Your task to perform on an android device: Go to Google maps Image 0: 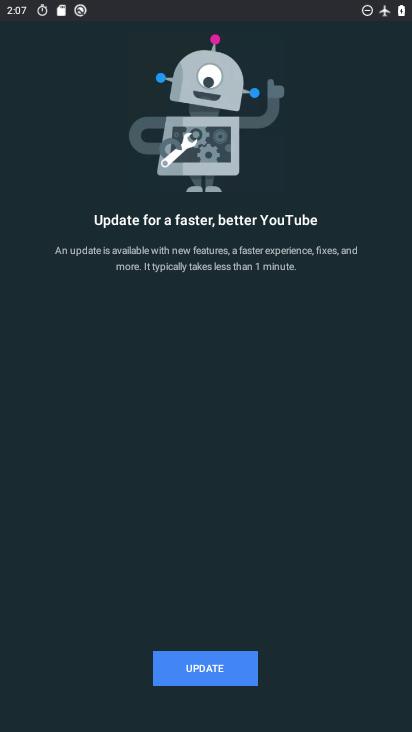
Step 0: press home button
Your task to perform on an android device: Go to Google maps Image 1: 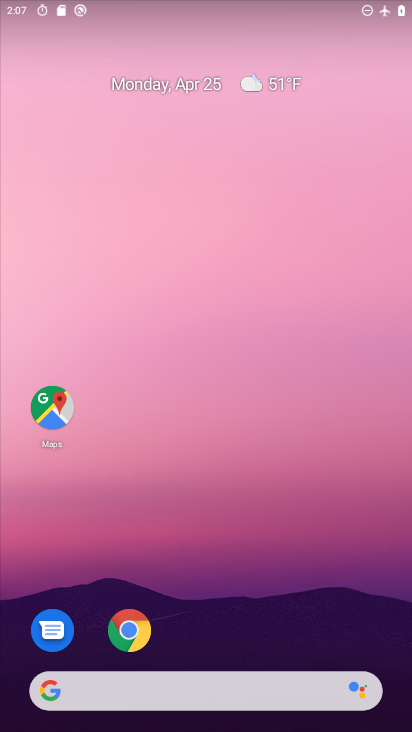
Step 1: drag from (316, 539) to (291, 73)
Your task to perform on an android device: Go to Google maps Image 2: 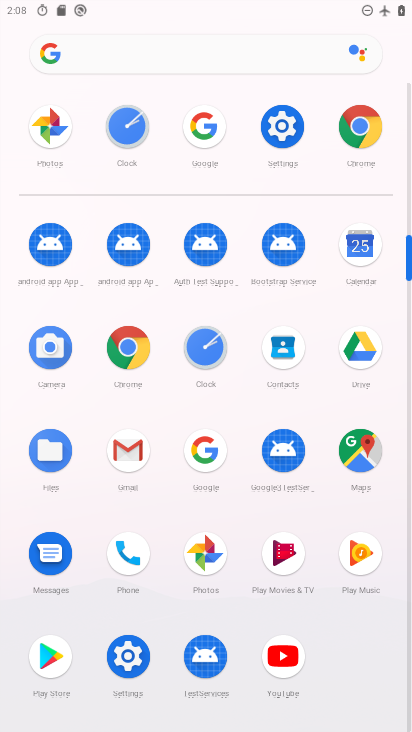
Step 2: click (365, 455)
Your task to perform on an android device: Go to Google maps Image 3: 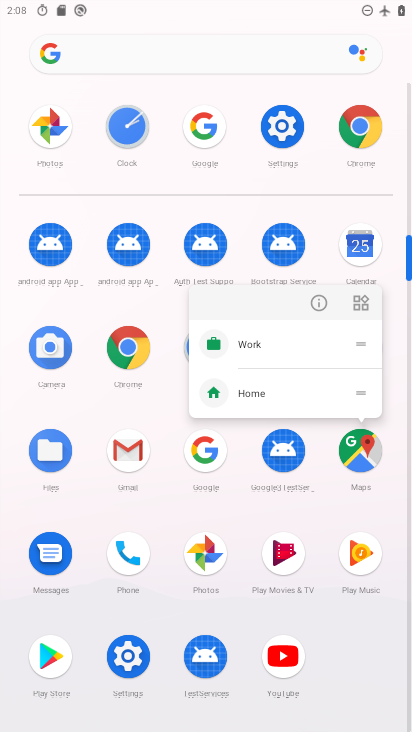
Step 3: click (365, 455)
Your task to perform on an android device: Go to Google maps Image 4: 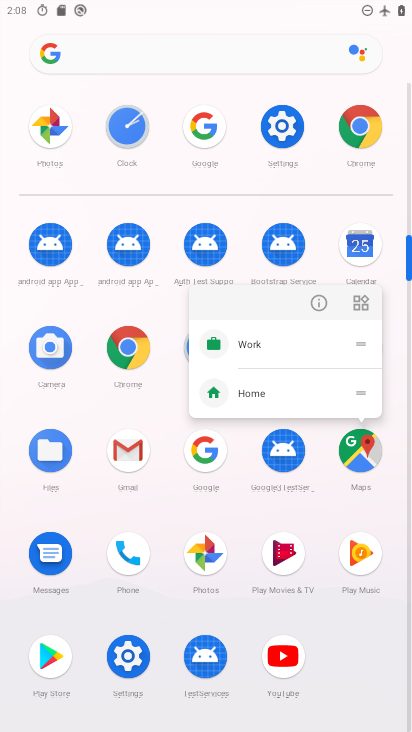
Step 4: click (365, 455)
Your task to perform on an android device: Go to Google maps Image 5: 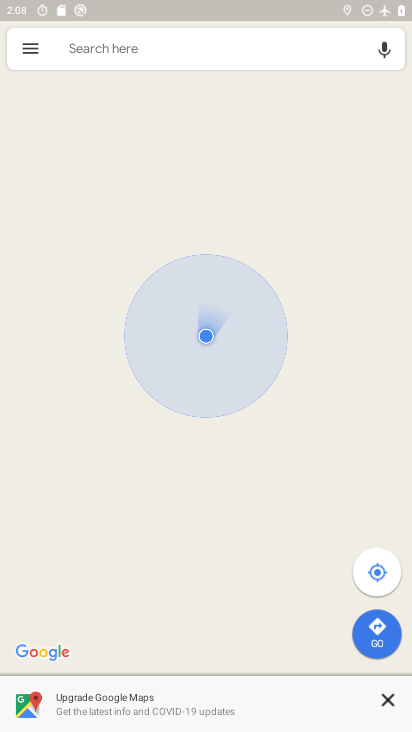
Step 5: task complete